Your task to perform on an android device: choose inbox layout in the gmail app Image 0: 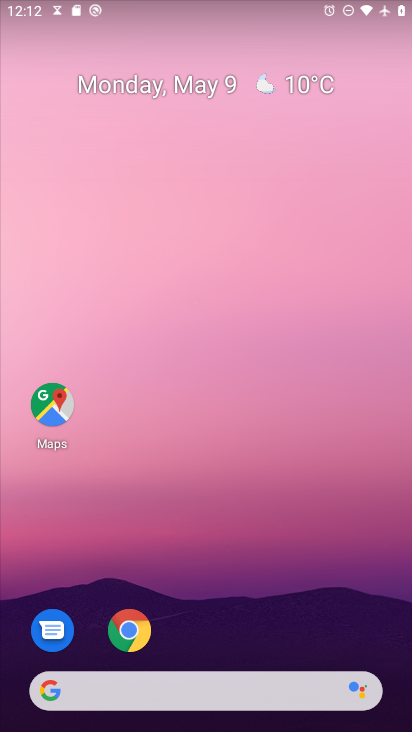
Step 0: drag from (163, 693) to (399, 51)
Your task to perform on an android device: choose inbox layout in the gmail app Image 1: 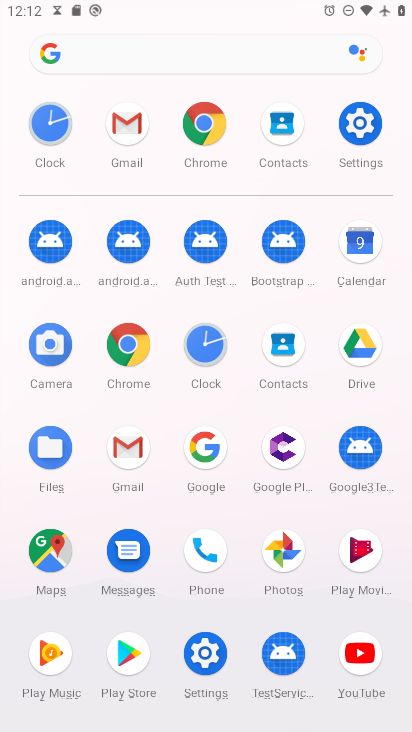
Step 1: click (129, 130)
Your task to perform on an android device: choose inbox layout in the gmail app Image 2: 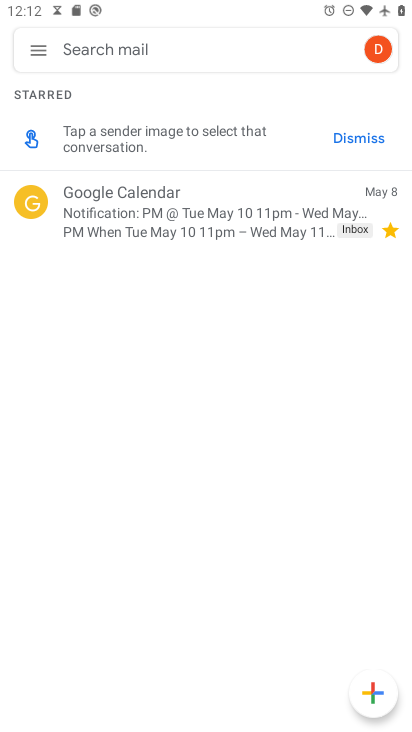
Step 2: click (35, 52)
Your task to perform on an android device: choose inbox layout in the gmail app Image 3: 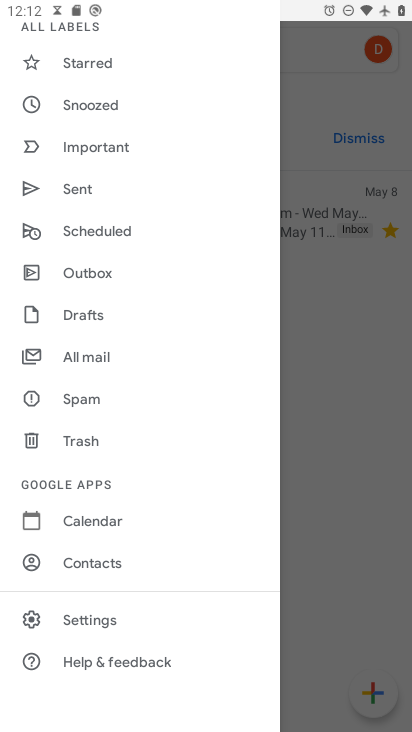
Step 3: click (90, 619)
Your task to perform on an android device: choose inbox layout in the gmail app Image 4: 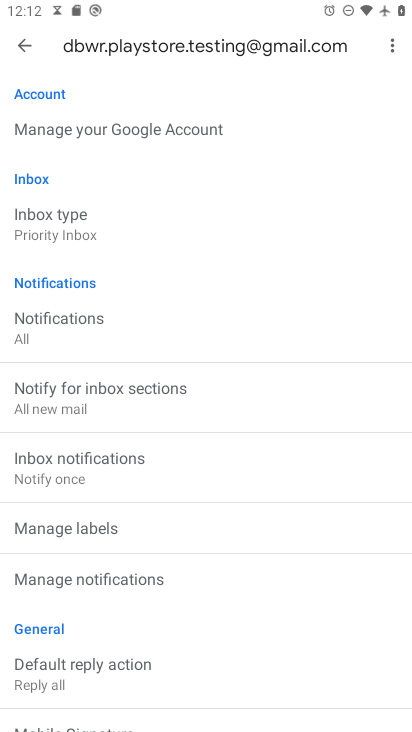
Step 4: click (31, 239)
Your task to perform on an android device: choose inbox layout in the gmail app Image 5: 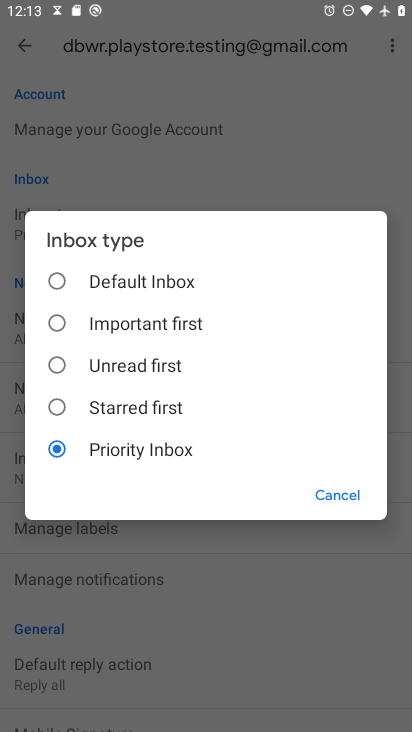
Step 5: click (54, 284)
Your task to perform on an android device: choose inbox layout in the gmail app Image 6: 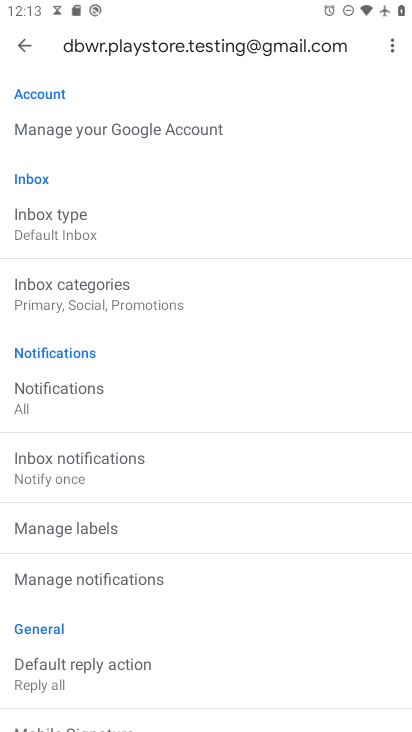
Step 6: task complete